Your task to perform on an android device: turn on location history Image 0: 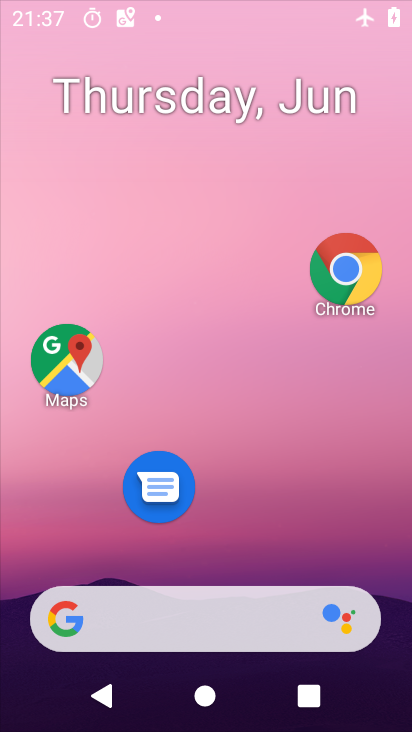
Step 0: drag from (229, 550) to (223, 21)
Your task to perform on an android device: turn on location history Image 1: 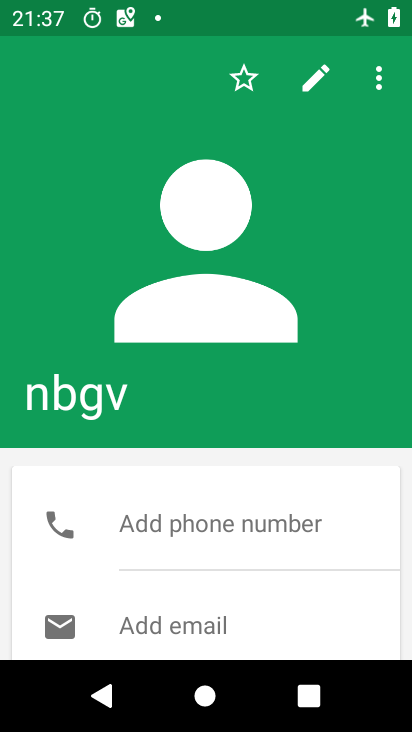
Step 1: press home button
Your task to perform on an android device: turn on location history Image 2: 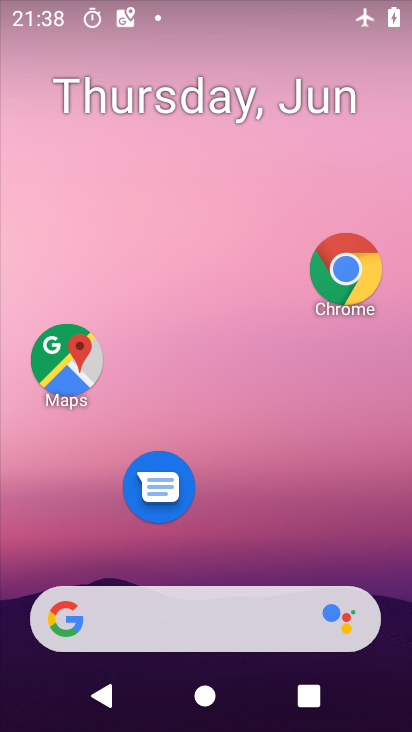
Step 2: drag from (193, 608) to (287, 1)
Your task to perform on an android device: turn on location history Image 3: 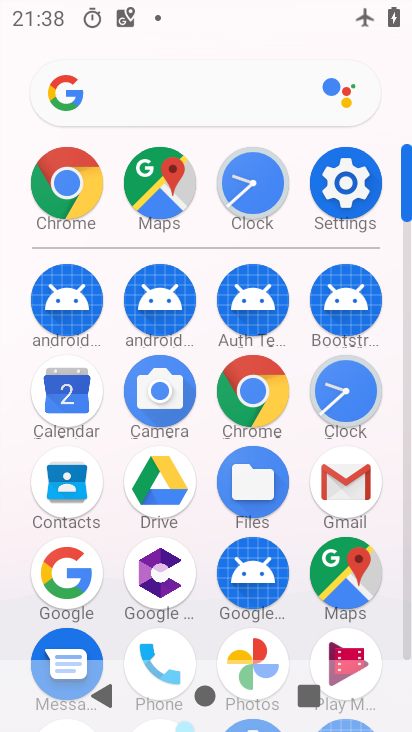
Step 3: click (348, 176)
Your task to perform on an android device: turn on location history Image 4: 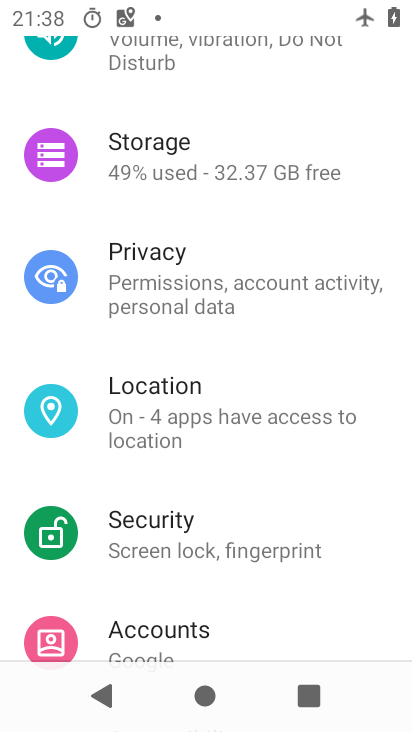
Step 4: drag from (359, 8) to (308, 631)
Your task to perform on an android device: turn on location history Image 5: 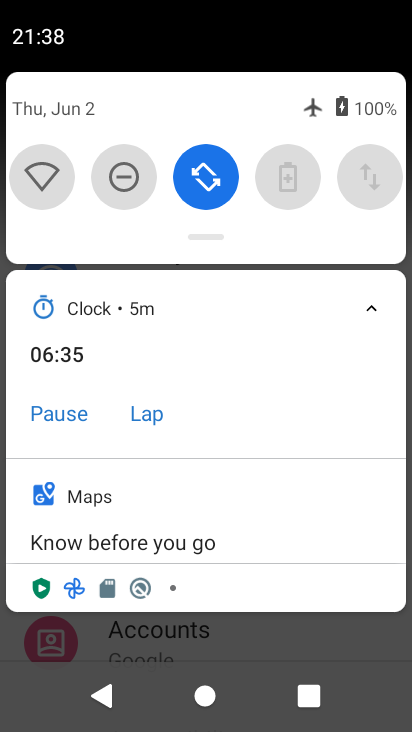
Step 5: drag from (284, 242) to (284, 558)
Your task to perform on an android device: turn on location history Image 6: 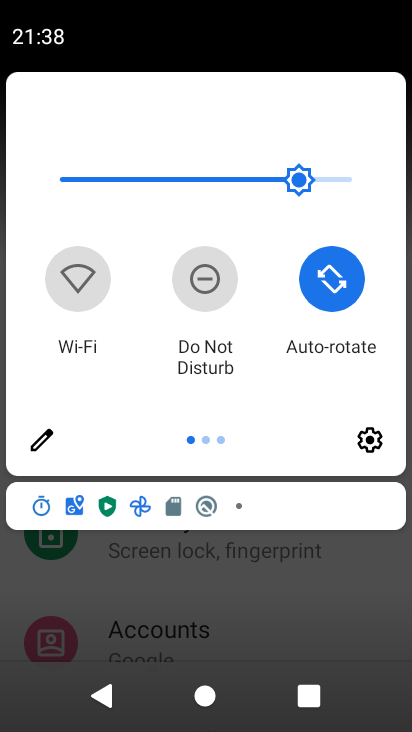
Step 6: drag from (359, 274) to (3, 336)
Your task to perform on an android device: turn on location history Image 7: 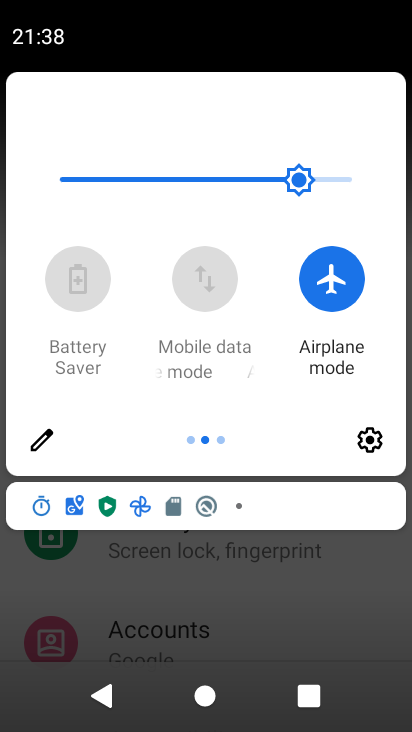
Step 7: click (339, 290)
Your task to perform on an android device: turn on location history Image 8: 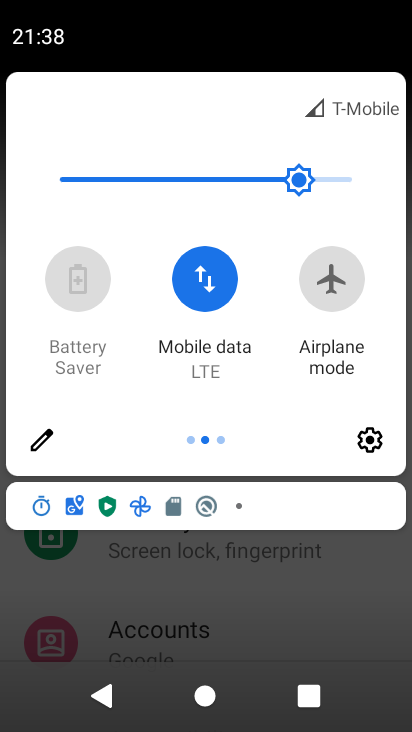
Step 8: press back button
Your task to perform on an android device: turn on location history Image 9: 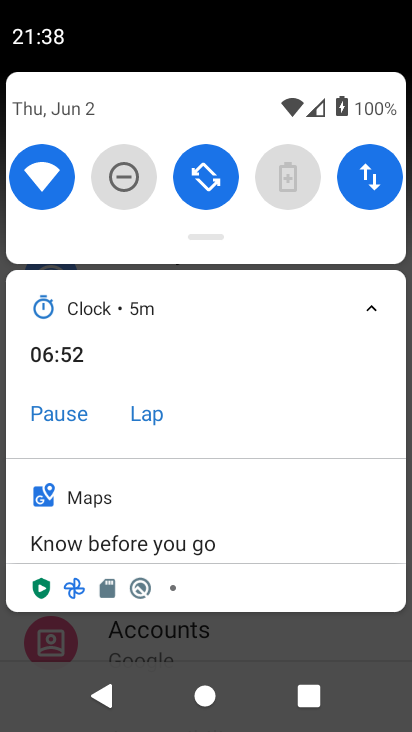
Step 9: press back button
Your task to perform on an android device: turn on location history Image 10: 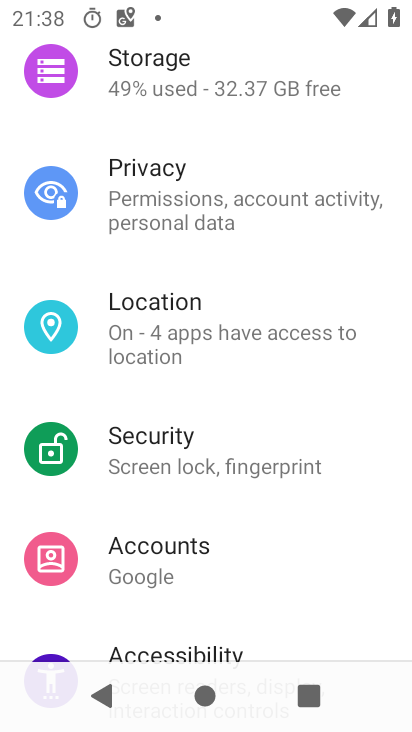
Step 10: drag from (251, 493) to (281, 131)
Your task to perform on an android device: turn on location history Image 11: 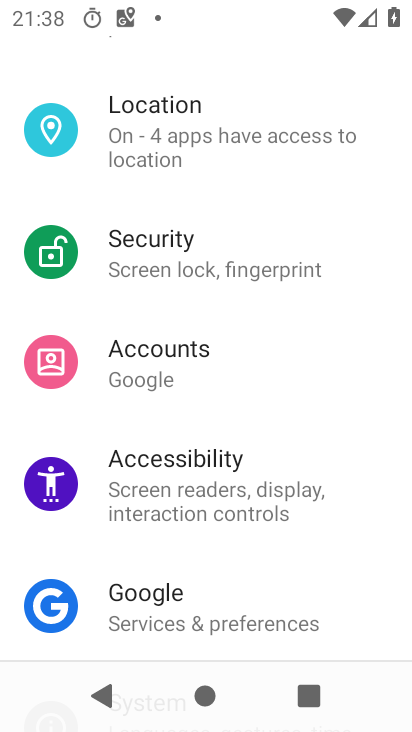
Step 11: drag from (292, 224) to (271, 729)
Your task to perform on an android device: turn on location history Image 12: 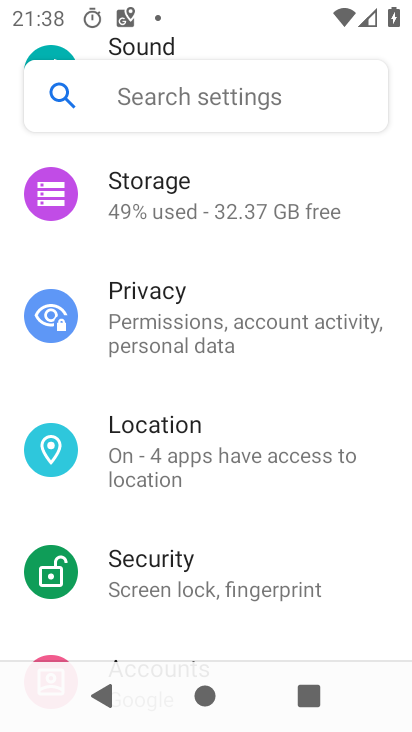
Step 12: drag from (244, 232) to (267, 644)
Your task to perform on an android device: turn on location history Image 13: 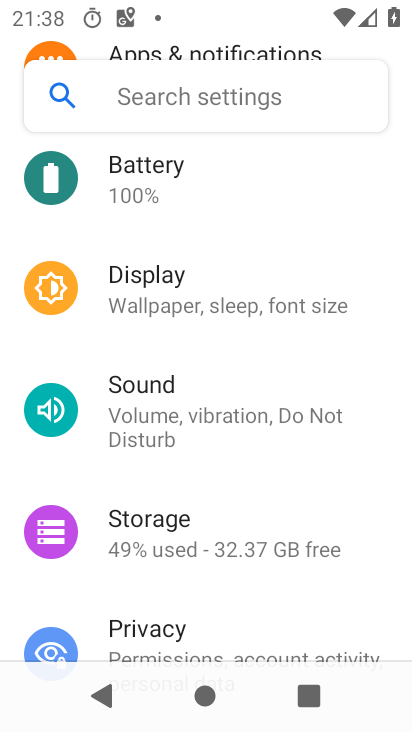
Step 13: drag from (157, 228) to (303, 633)
Your task to perform on an android device: turn on location history Image 14: 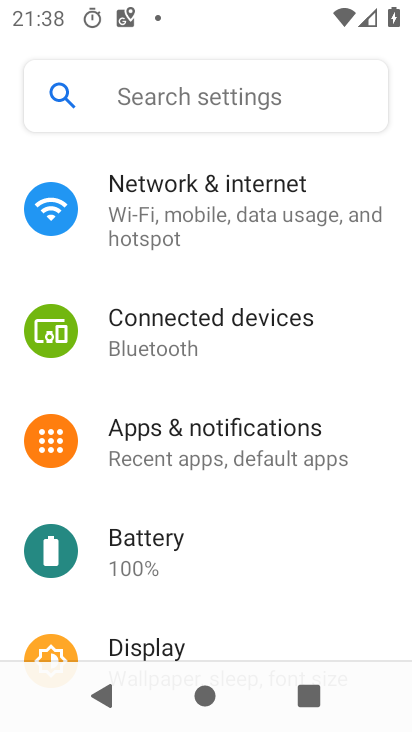
Step 14: drag from (171, 637) to (260, 10)
Your task to perform on an android device: turn on location history Image 15: 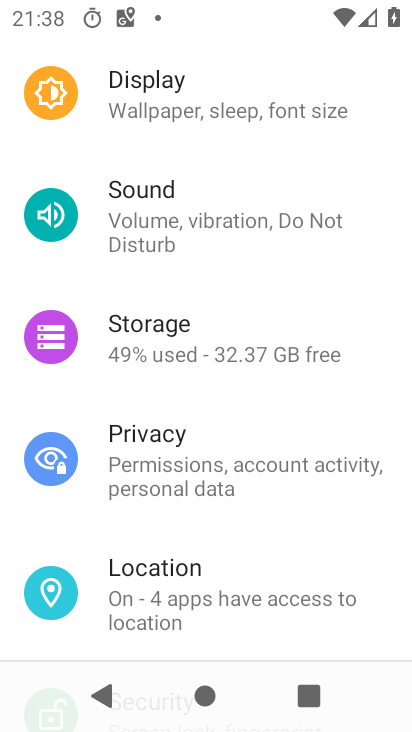
Step 15: click (193, 579)
Your task to perform on an android device: turn on location history Image 16: 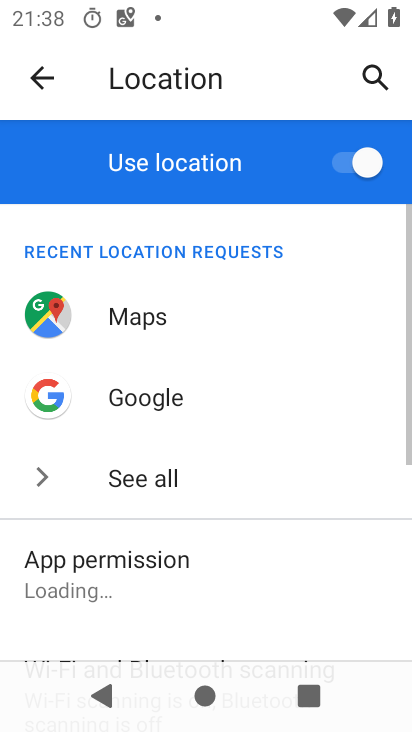
Step 16: drag from (221, 504) to (244, 32)
Your task to perform on an android device: turn on location history Image 17: 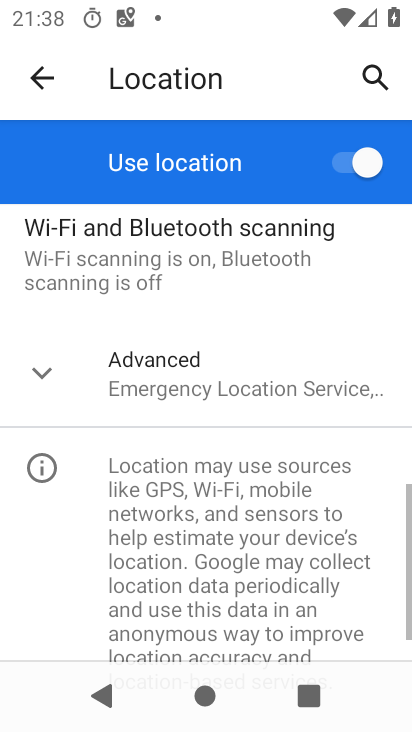
Step 17: click (184, 401)
Your task to perform on an android device: turn on location history Image 18: 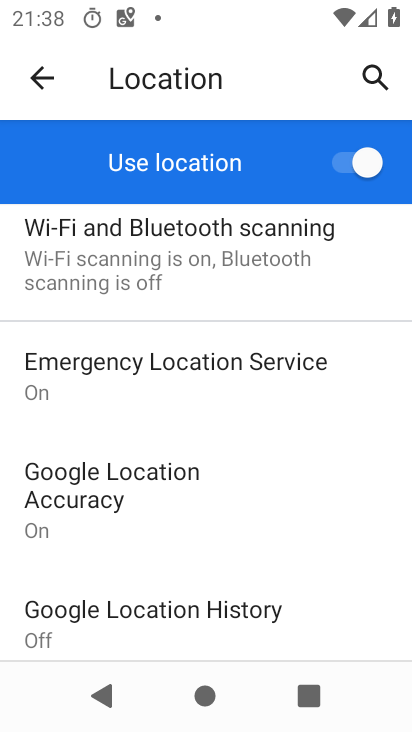
Step 18: drag from (203, 469) to (251, 139)
Your task to perform on an android device: turn on location history Image 19: 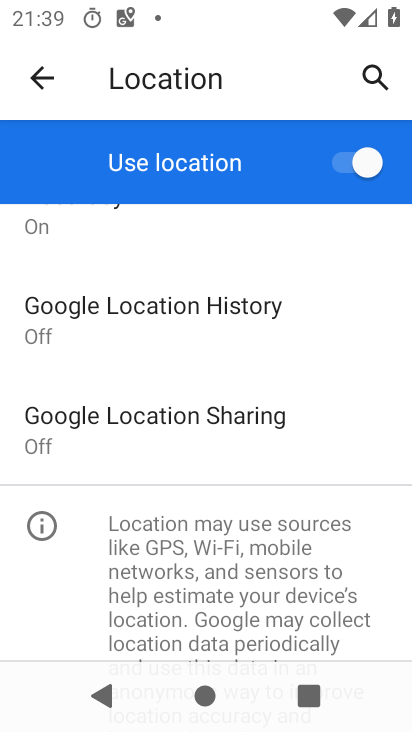
Step 19: click (209, 320)
Your task to perform on an android device: turn on location history Image 20: 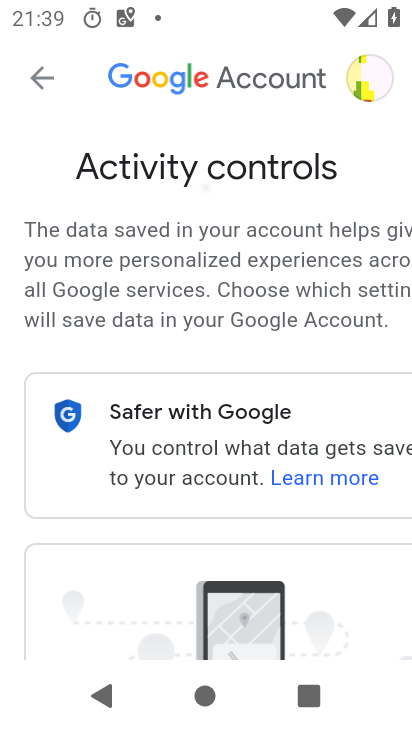
Step 20: drag from (171, 603) to (288, 148)
Your task to perform on an android device: turn on location history Image 21: 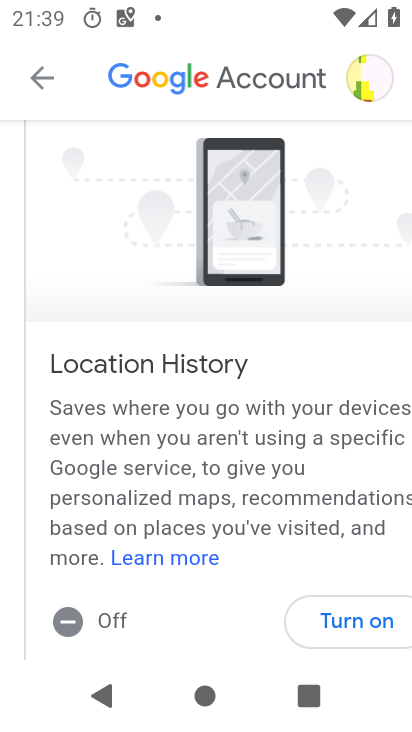
Step 21: drag from (219, 624) to (225, 356)
Your task to perform on an android device: turn on location history Image 22: 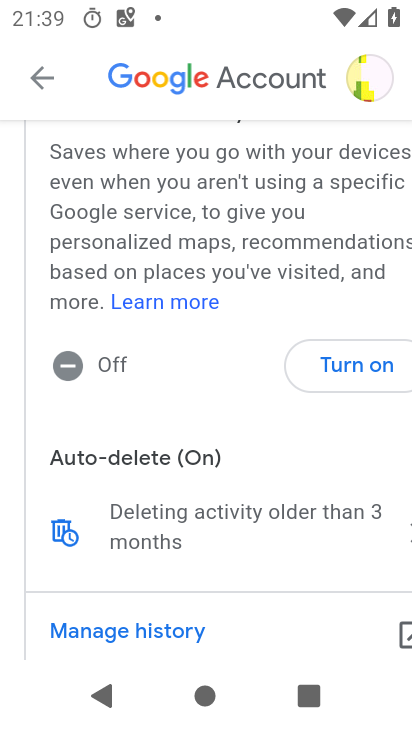
Step 22: click (344, 365)
Your task to perform on an android device: turn on location history Image 23: 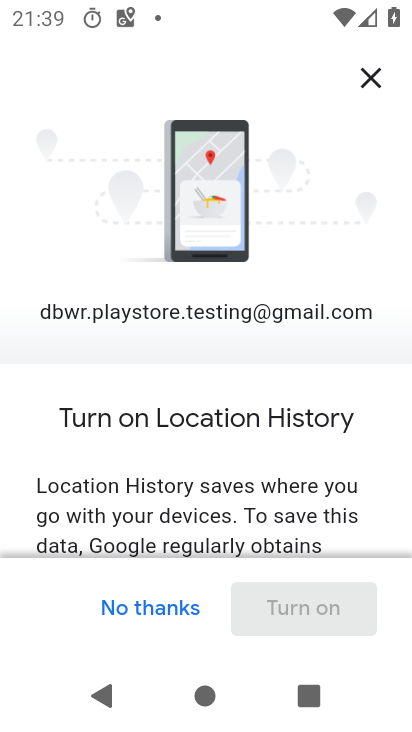
Step 23: drag from (277, 553) to (364, 170)
Your task to perform on an android device: turn on location history Image 24: 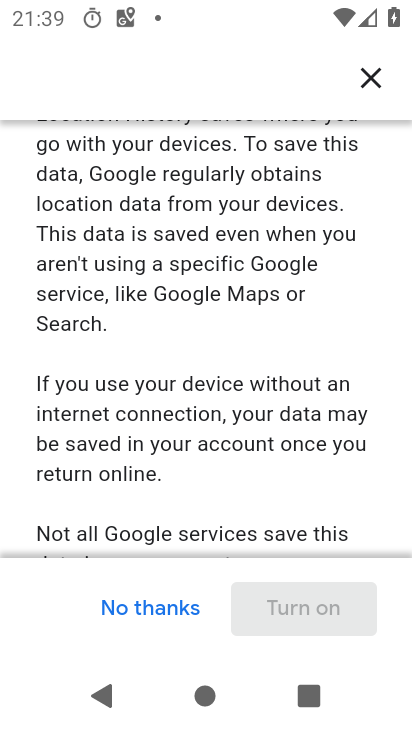
Step 24: drag from (179, 480) to (214, 281)
Your task to perform on an android device: turn on location history Image 25: 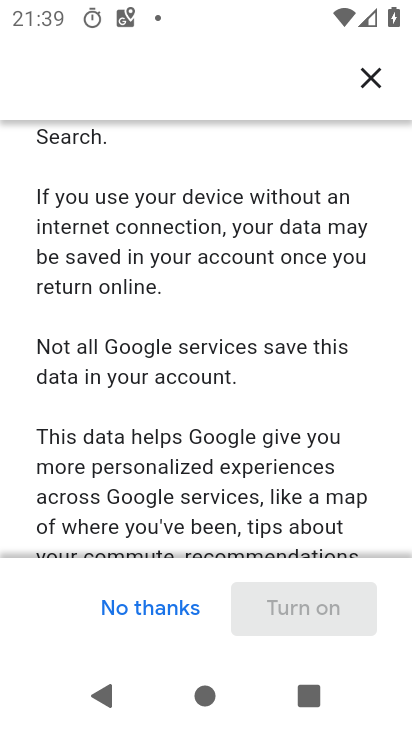
Step 25: drag from (75, 496) to (171, 273)
Your task to perform on an android device: turn on location history Image 26: 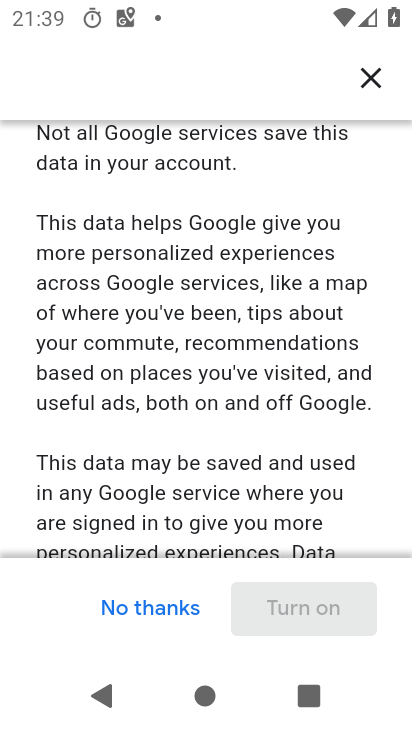
Step 26: drag from (205, 493) to (297, 127)
Your task to perform on an android device: turn on location history Image 27: 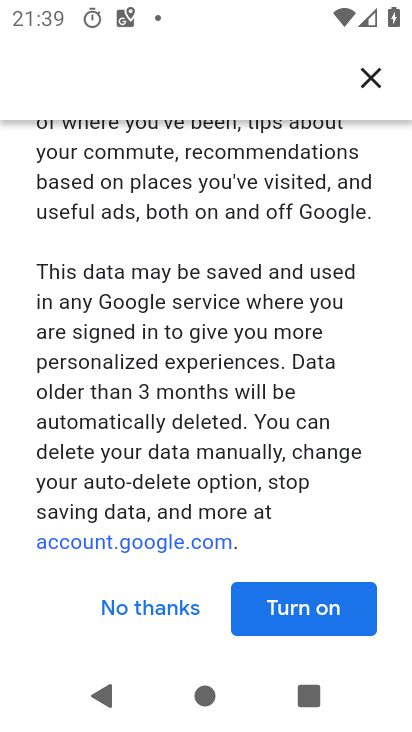
Step 27: click (292, 611)
Your task to perform on an android device: turn on location history Image 28: 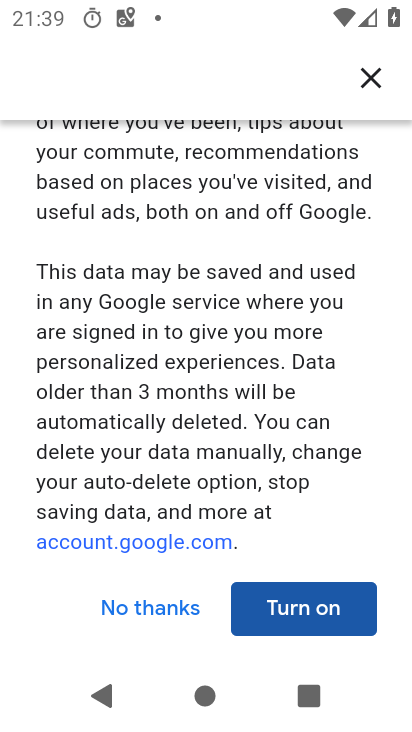
Step 28: task complete